Your task to perform on an android device: change timer sound Image 0: 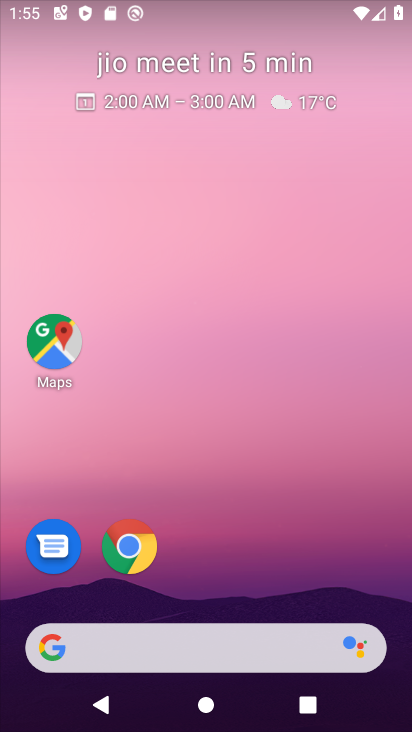
Step 0: drag from (296, 589) to (308, 245)
Your task to perform on an android device: change timer sound Image 1: 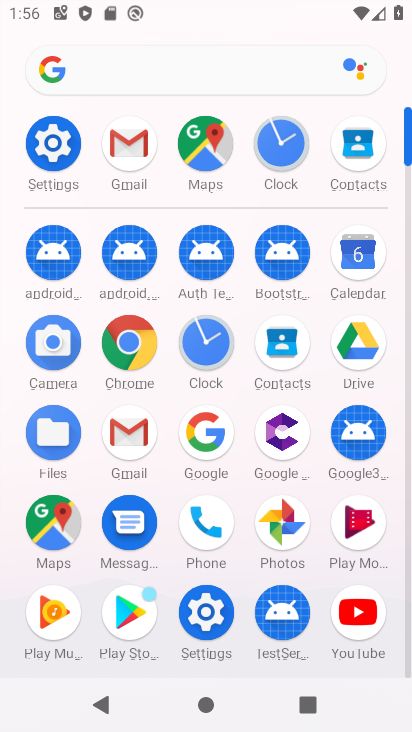
Step 1: click (49, 172)
Your task to perform on an android device: change timer sound Image 2: 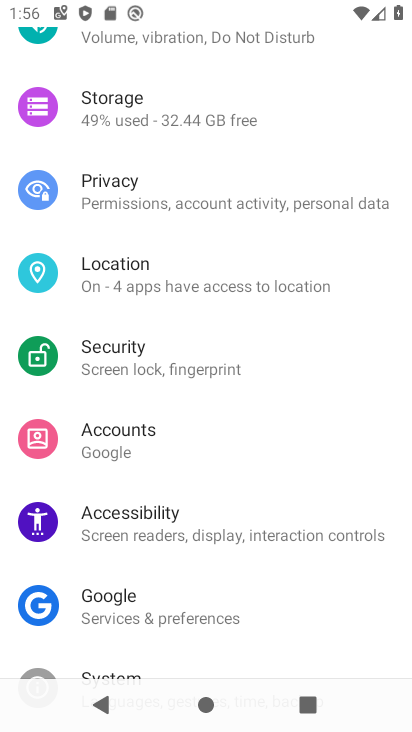
Step 2: drag from (135, 190) to (148, 637)
Your task to perform on an android device: change timer sound Image 3: 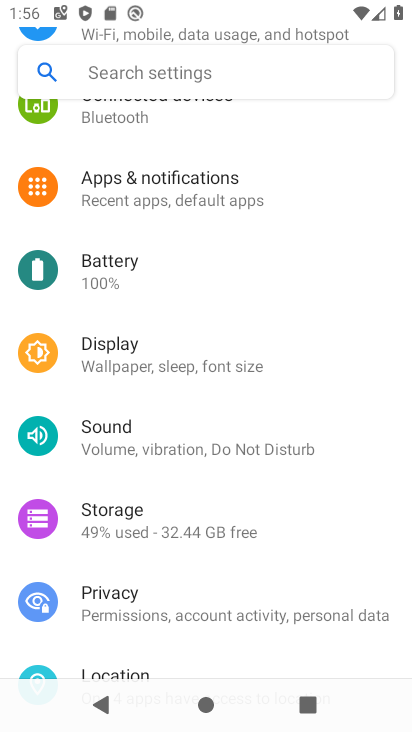
Step 3: drag from (157, 406) to (148, 726)
Your task to perform on an android device: change timer sound Image 4: 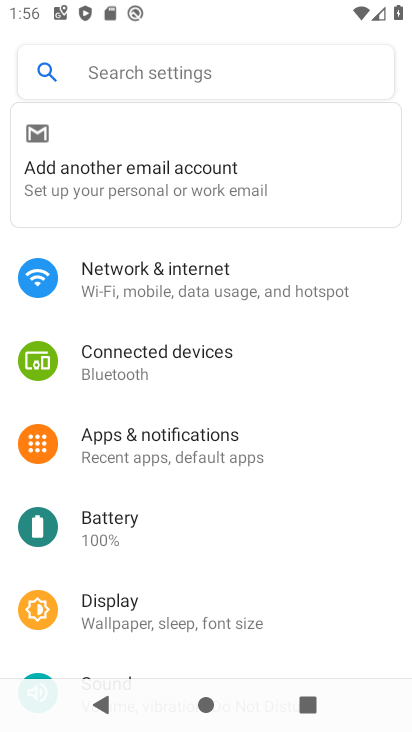
Step 4: drag from (213, 633) to (240, 419)
Your task to perform on an android device: change timer sound Image 5: 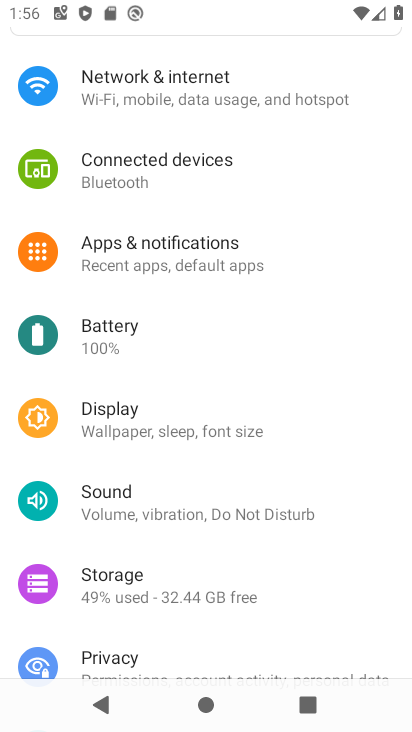
Step 5: click (184, 478)
Your task to perform on an android device: change timer sound Image 6: 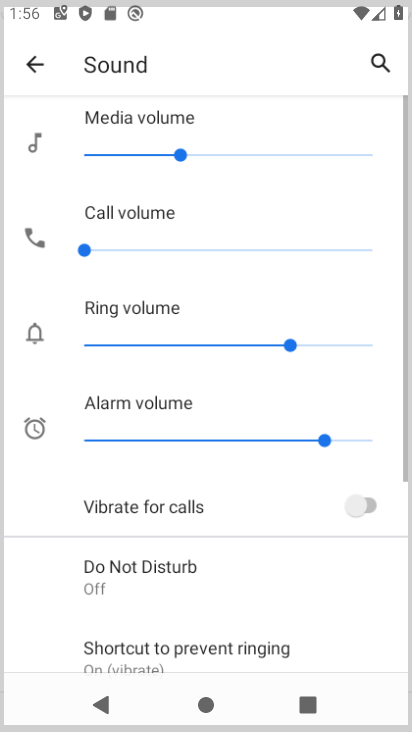
Step 6: task complete